Your task to perform on an android device: turn on the 24-hour format for clock Image 0: 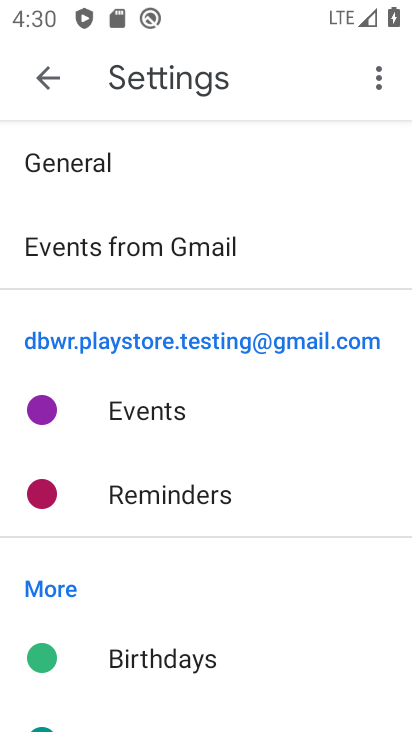
Step 0: press home button
Your task to perform on an android device: turn on the 24-hour format for clock Image 1: 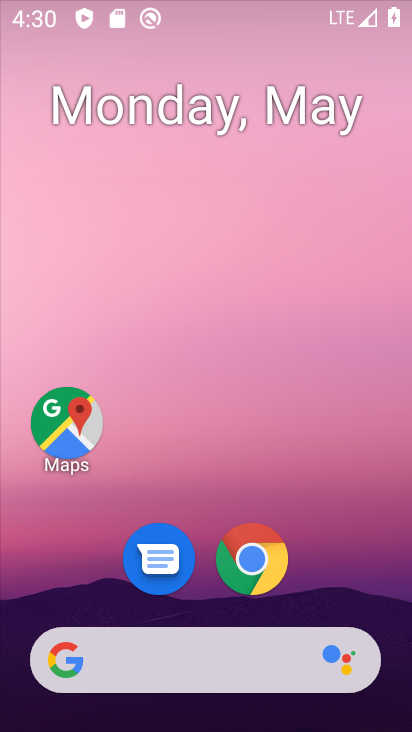
Step 1: drag from (287, 629) to (329, 26)
Your task to perform on an android device: turn on the 24-hour format for clock Image 2: 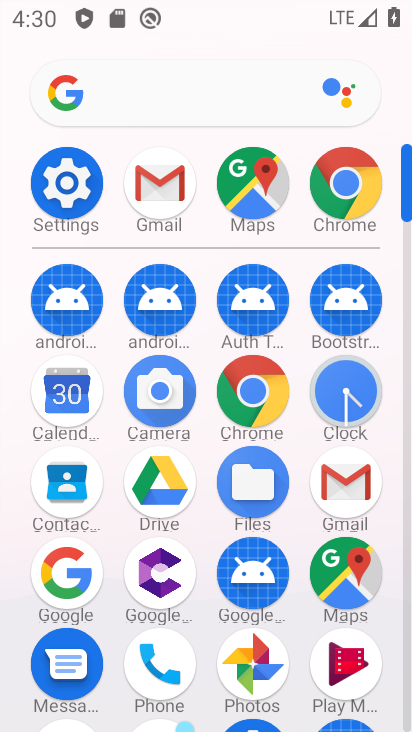
Step 2: click (374, 393)
Your task to perform on an android device: turn on the 24-hour format for clock Image 3: 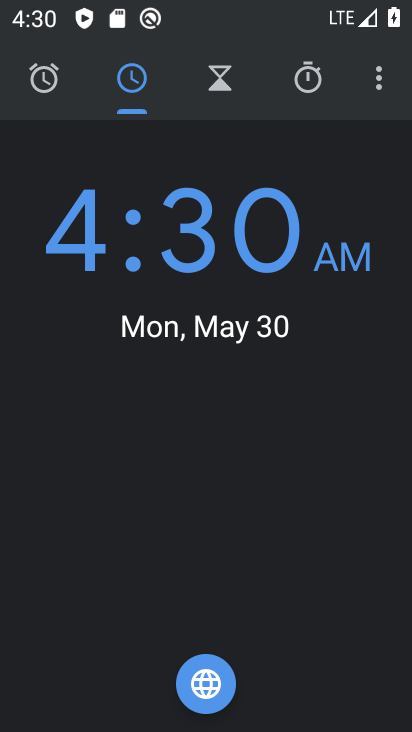
Step 3: drag from (384, 80) to (276, 150)
Your task to perform on an android device: turn on the 24-hour format for clock Image 4: 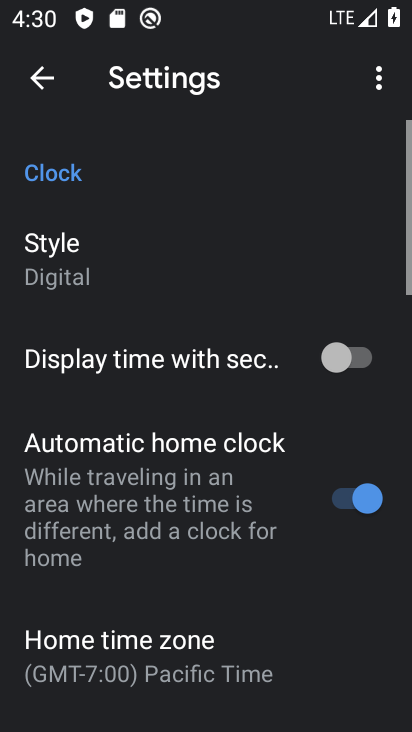
Step 4: drag from (218, 484) to (209, 225)
Your task to perform on an android device: turn on the 24-hour format for clock Image 5: 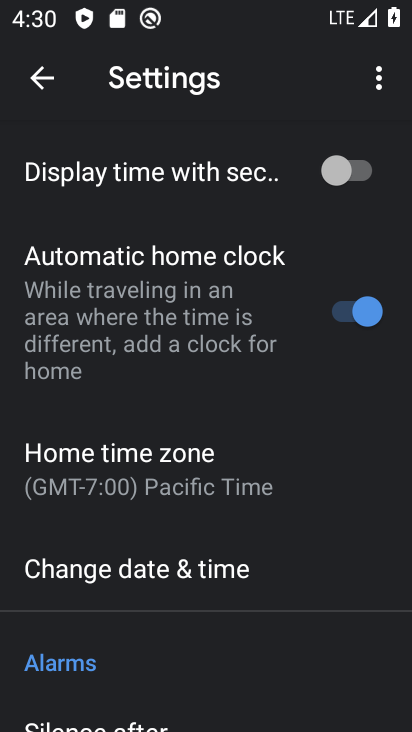
Step 5: drag from (247, 479) to (283, 181)
Your task to perform on an android device: turn on the 24-hour format for clock Image 6: 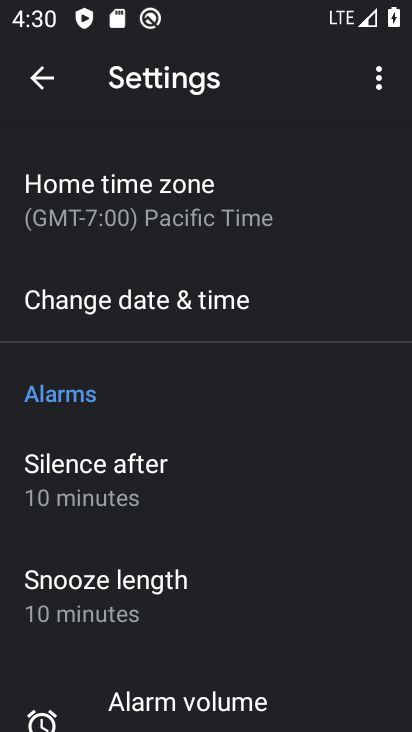
Step 6: click (253, 309)
Your task to perform on an android device: turn on the 24-hour format for clock Image 7: 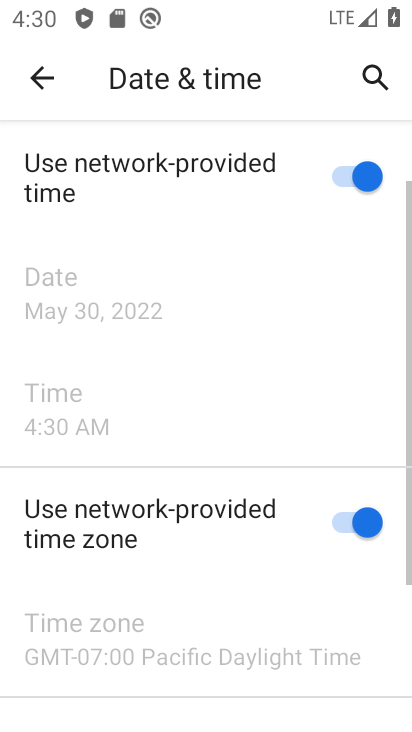
Step 7: drag from (288, 584) to (310, 137)
Your task to perform on an android device: turn on the 24-hour format for clock Image 8: 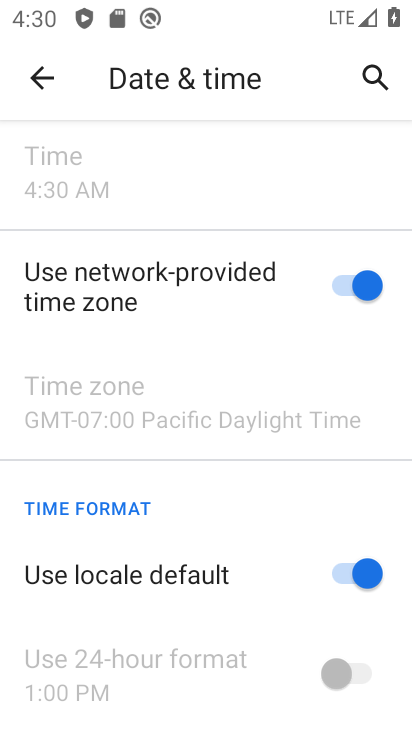
Step 8: click (350, 676)
Your task to perform on an android device: turn on the 24-hour format for clock Image 9: 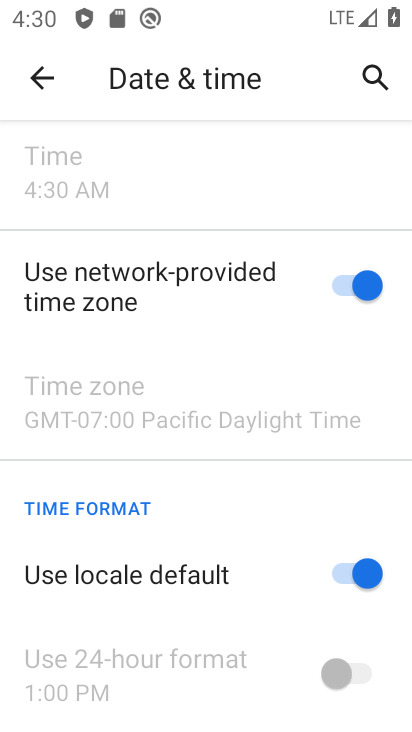
Step 9: click (342, 589)
Your task to perform on an android device: turn on the 24-hour format for clock Image 10: 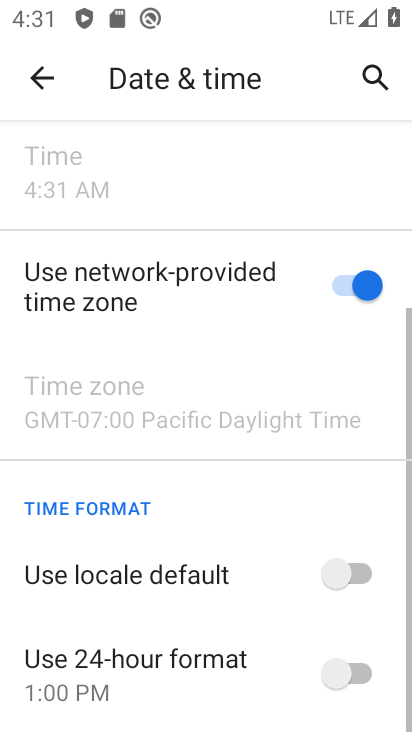
Step 10: click (365, 678)
Your task to perform on an android device: turn on the 24-hour format for clock Image 11: 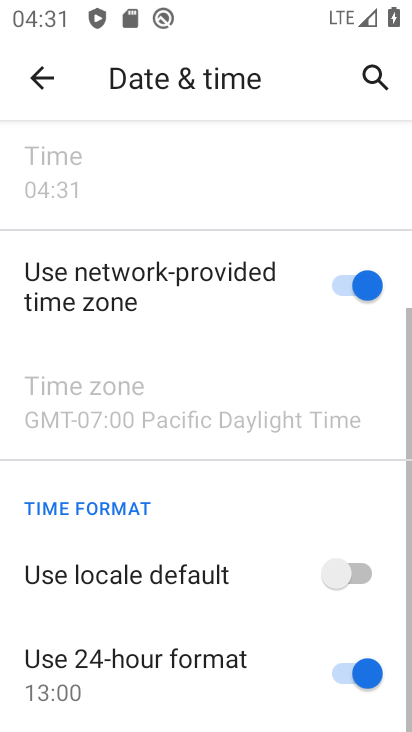
Step 11: task complete